Your task to perform on an android device: Go to ESPN.com Image 0: 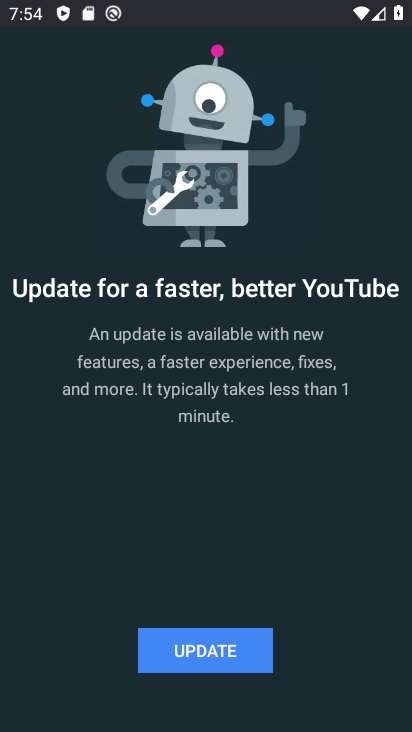
Step 0: press back button
Your task to perform on an android device: Go to ESPN.com Image 1: 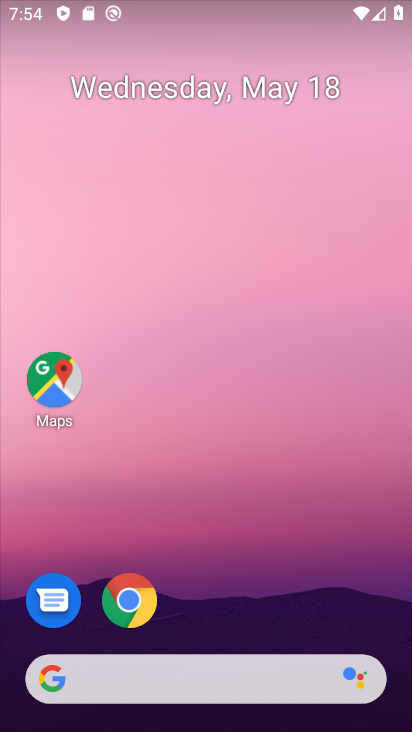
Step 1: drag from (202, 705) to (289, 170)
Your task to perform on an android device: Go to ESPN.com Image 2: 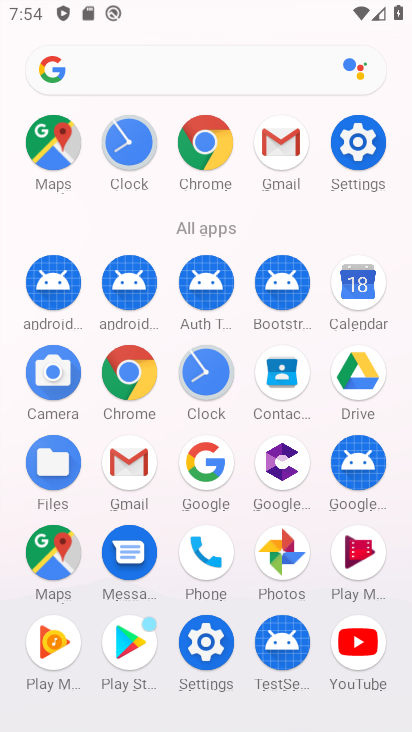
Step 2: click (186, 155)
Your task to perform on an android device: Go to ESPN.com Image 3: 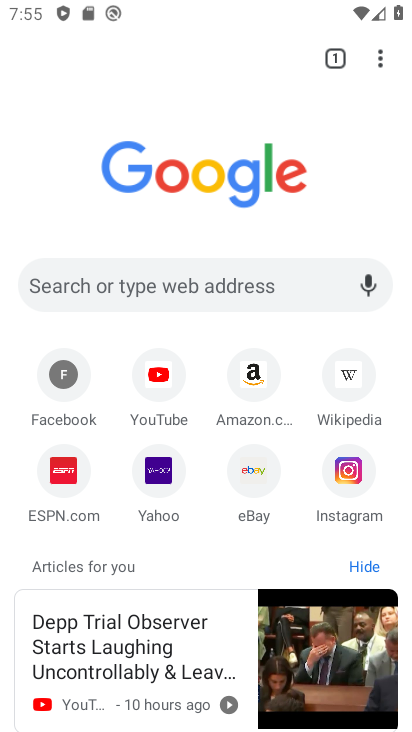
Step 3: click (63, 491)
Your task to perform on an android device: Go to ESPN.com Image 4: 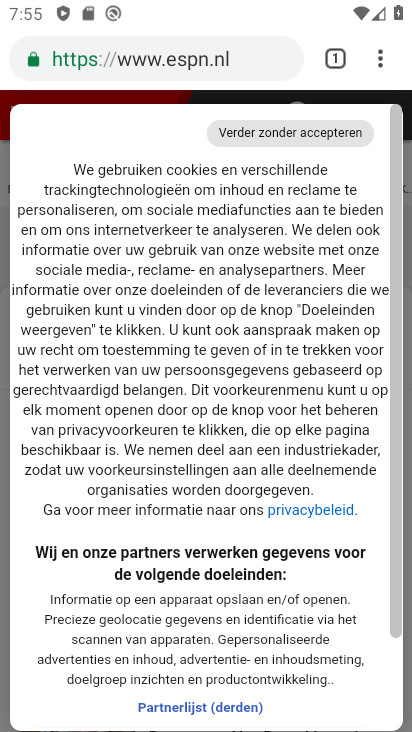
Step 4: drag from (109, 568) to (100, 357)
Your task to perform on an android device: Go to ESPN.com Image 5: 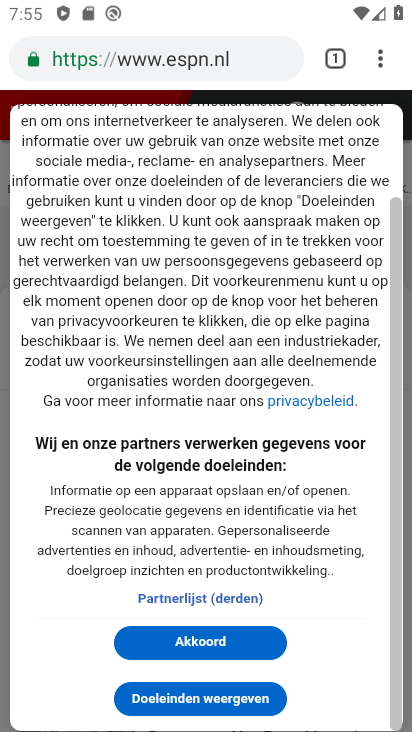
Step 5: click (205, 644)
Your task to perform on an android device: Go to ESPN.com Image 6: 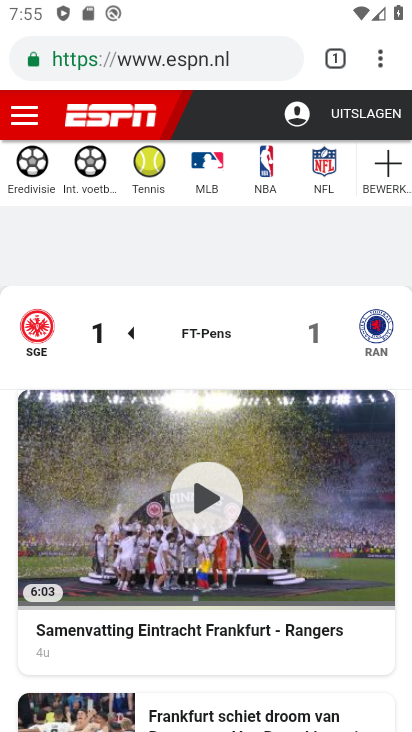
Step 6: task complete